Your task to perform on an android device: turn off wifi Image 0: 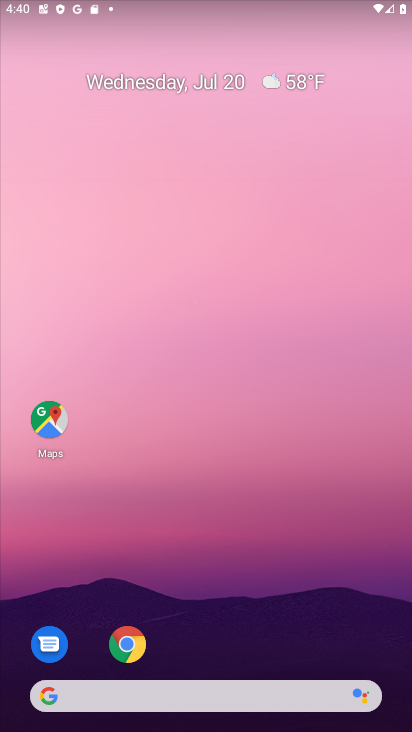
Step 0: press home button
Your task to perform on an android device: turn off wifi Image 1: 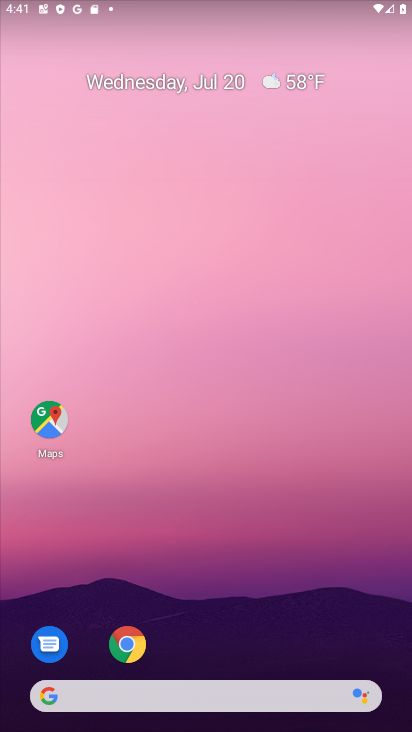
Step 1: drag from (209, 26) to (177, 547)
Your task to perform on an android device: turn off wifi Image 2: 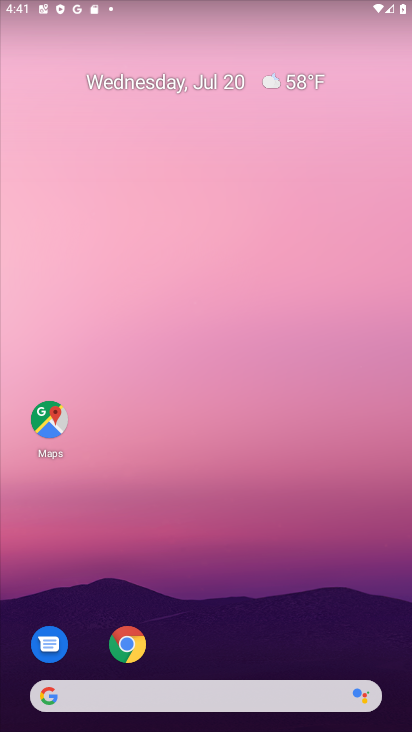
Step 2: drag from (201, 1) to (145, 628)
Your task to perform on an android device: turn off wifi Image 3: 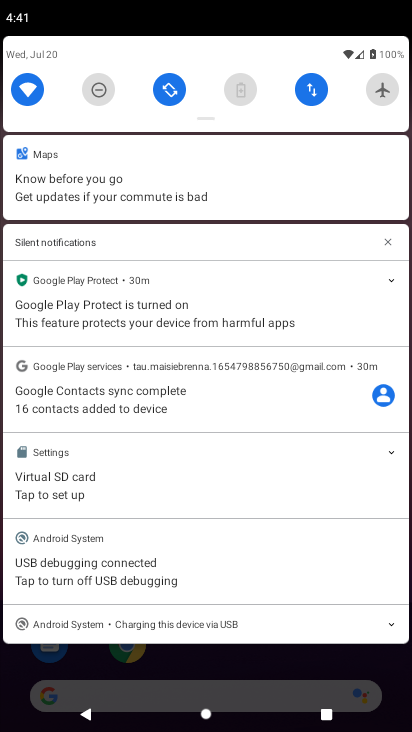
Step 3: click (28, 85)
Your task to perform on an android device: turn off wifi Image 4: 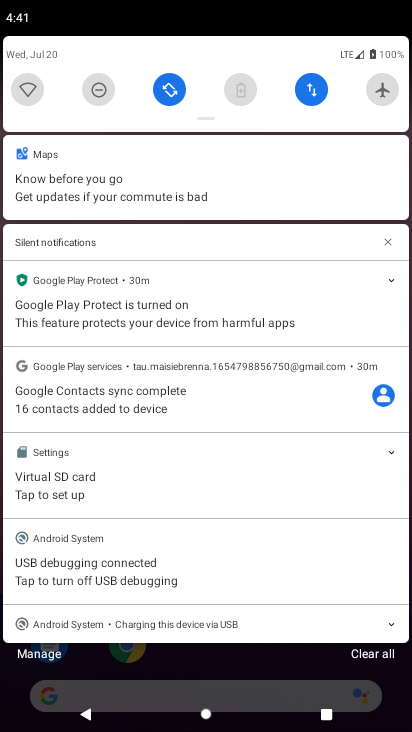
Step 4: task complete